Your task to perform on an android device: Open Google Maps and go to "Timeline" Image 0: 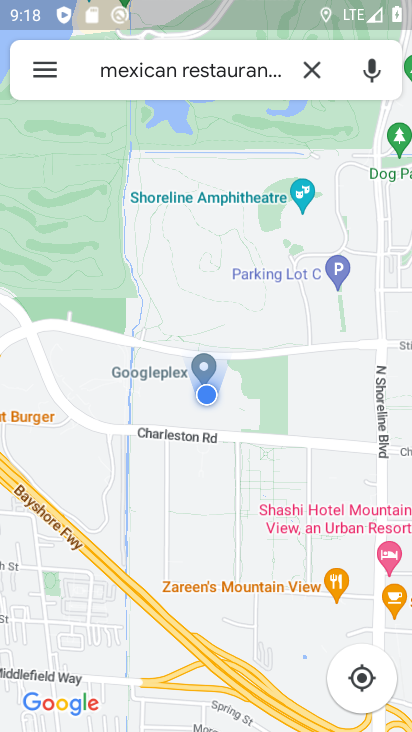
Step 0: click (46, 56)
Your task to perform on an android device: Open Google Maps and go to "Timeline" Image 1: 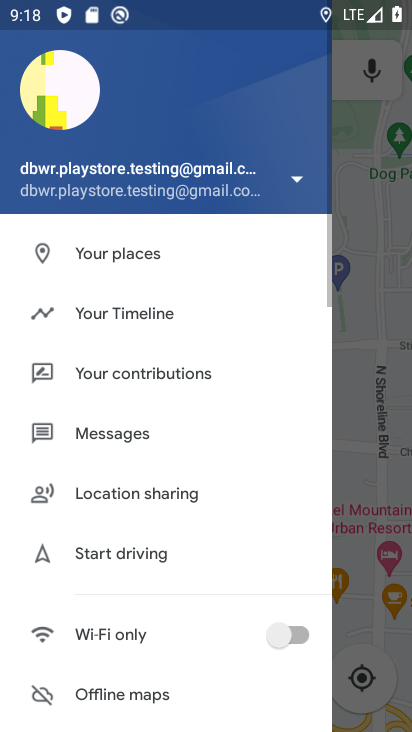
Step 1: click (153, 314)
Your task to perform on an android device: Open Google Maps and go to "Timeline" Image 2: 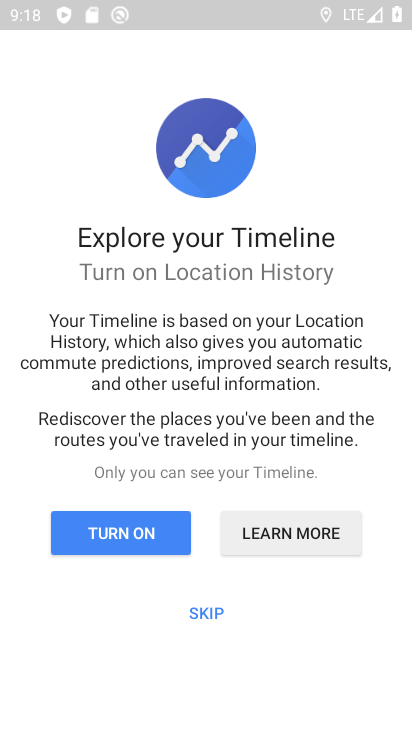
Step 2: click (209, 607)
Your task to perform on an android device: Open Google Maps and go to "Timeline" Image 3: 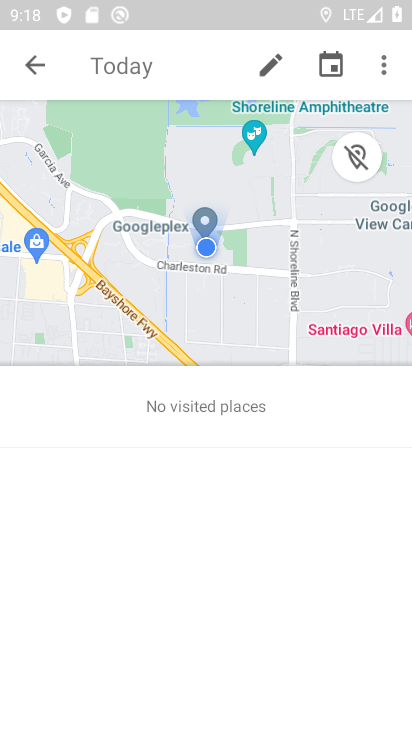
Step 3: task complete